Your task to perform on an android device: Open Google Maps Image 0: 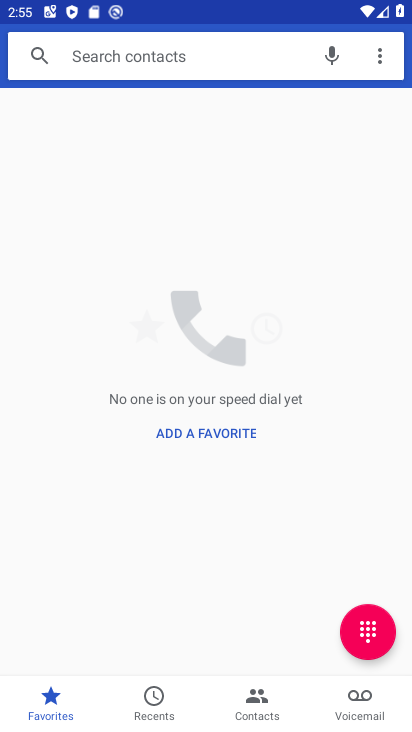
Step 0: press home button
Your task to perform on an android device: Open Google Maps Image 1: 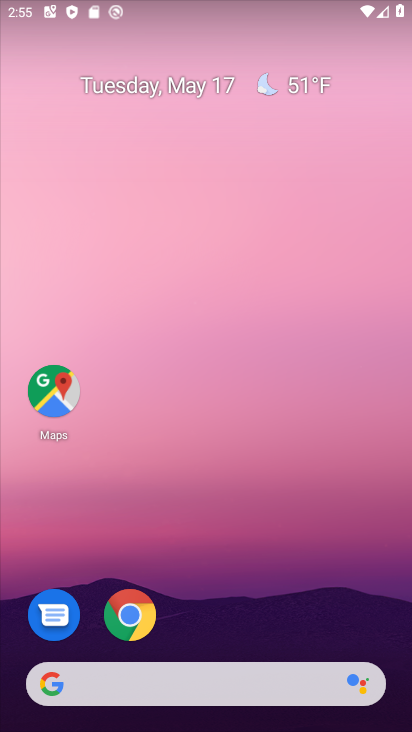
Step 1: click (56, 377)
Your task to perform on an android device: Open Google Maps Image 2: 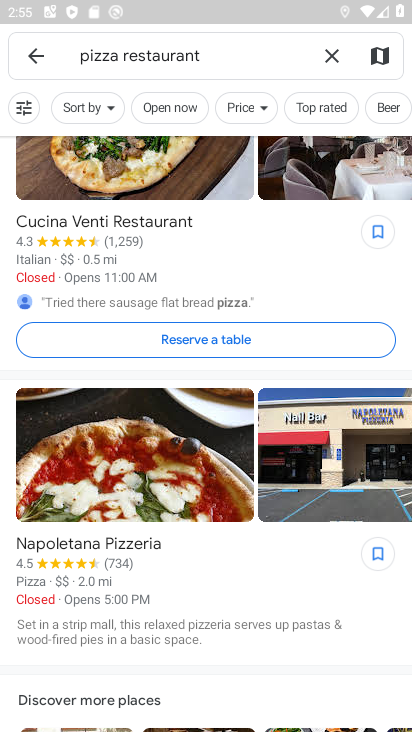
Step 2: click (32, 455)
Your task to perform on an android device: Open Google Maps Image 3: 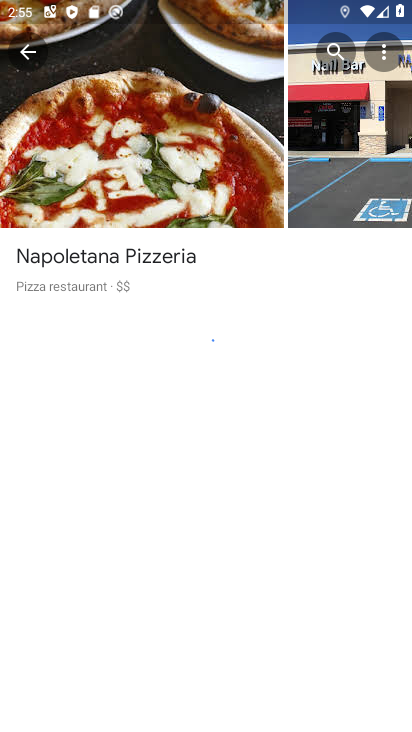
Step 3: click (30, 56)
Your task to perform on an android device: Open Google Maps Image 4: 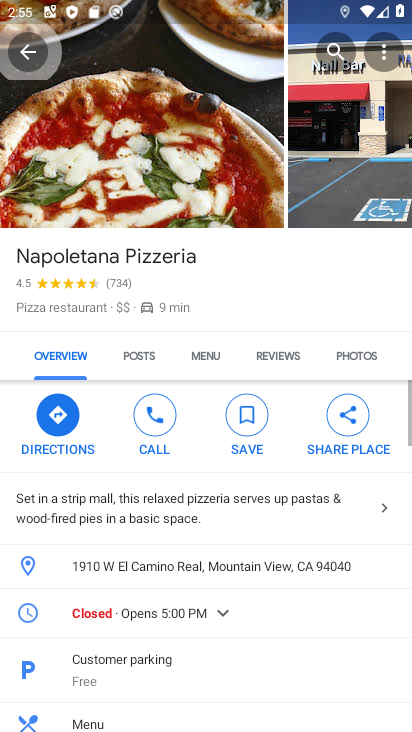
Step 4: click (31, 53)
Your task to perform on an android device: Open Google Maps Image 5: 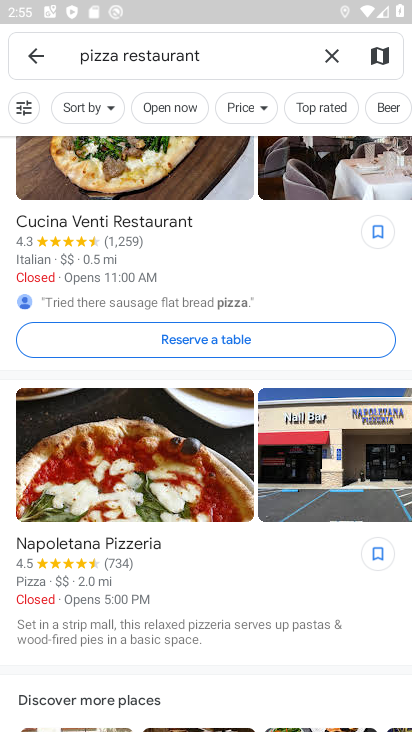
Step 5: click (31, 53)
Your task to perform on an android device: Open Google Maps Image 6: 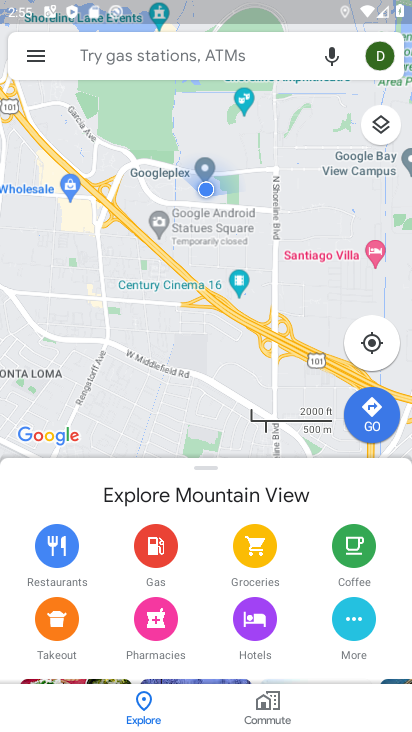
Step 6: drag from (173, 429) to (239, 259)
Your task to perform on an android device: Open Google Maps Image 7: 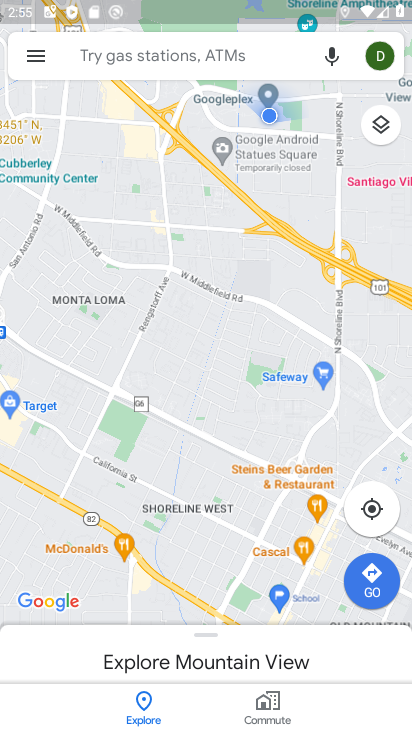
Step 7: click (30, 53)
Your task to perform on an android device: Open Google Maps Image 8: 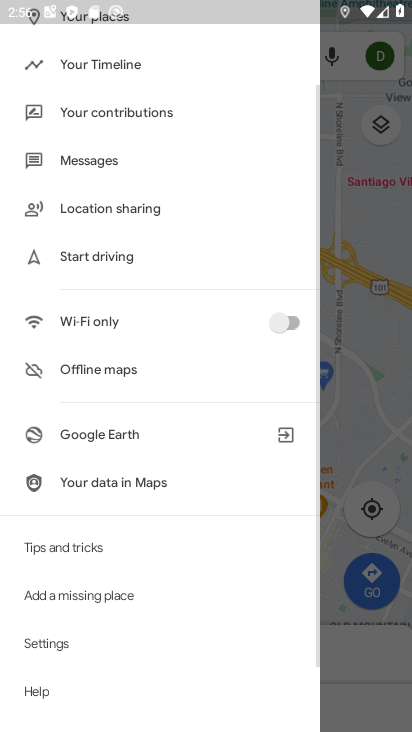
Step 8: task complete